Your task to perform on an android device: turn vacation reply on in the gmail app Image 0: 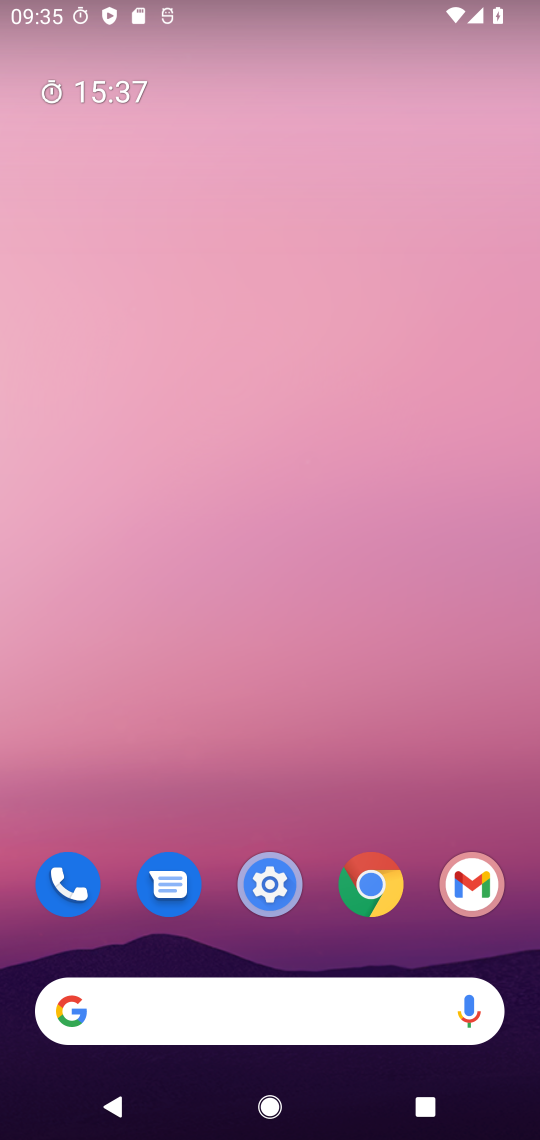
Step 0: click (455, 874)
Your task to perform on an android device: turn vacation reply on in the gmail app Image 1: 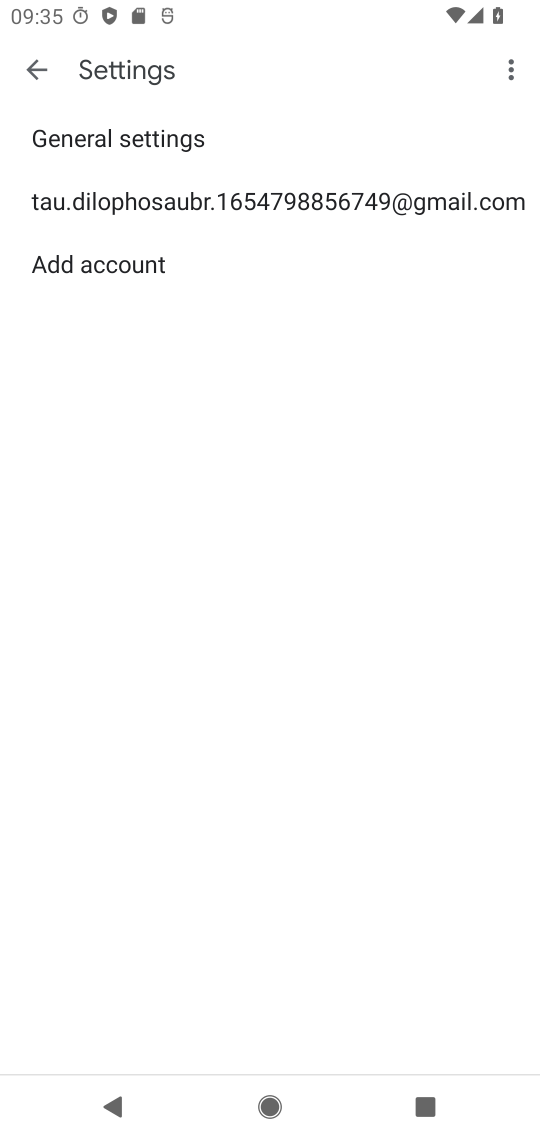
Step 1: click (179, 200)
Your task to perform on an android device: turn vacation reply on in the gmail app Image 2: 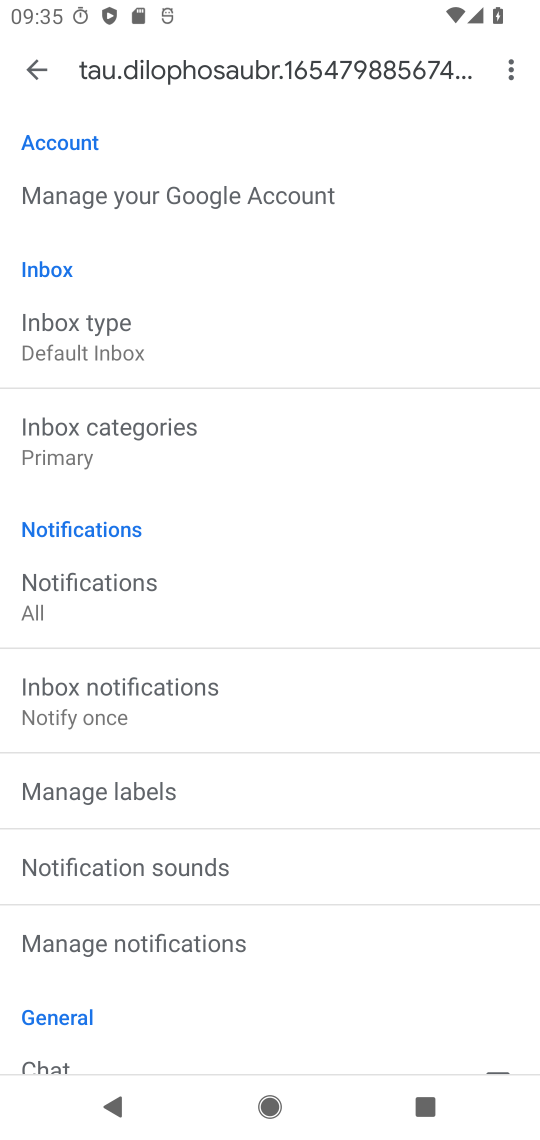
Step 2: drag from (226, 944) to (242, 491)
Your task to perform on an android device: turn vacation reply on in the gmail app Image 3: 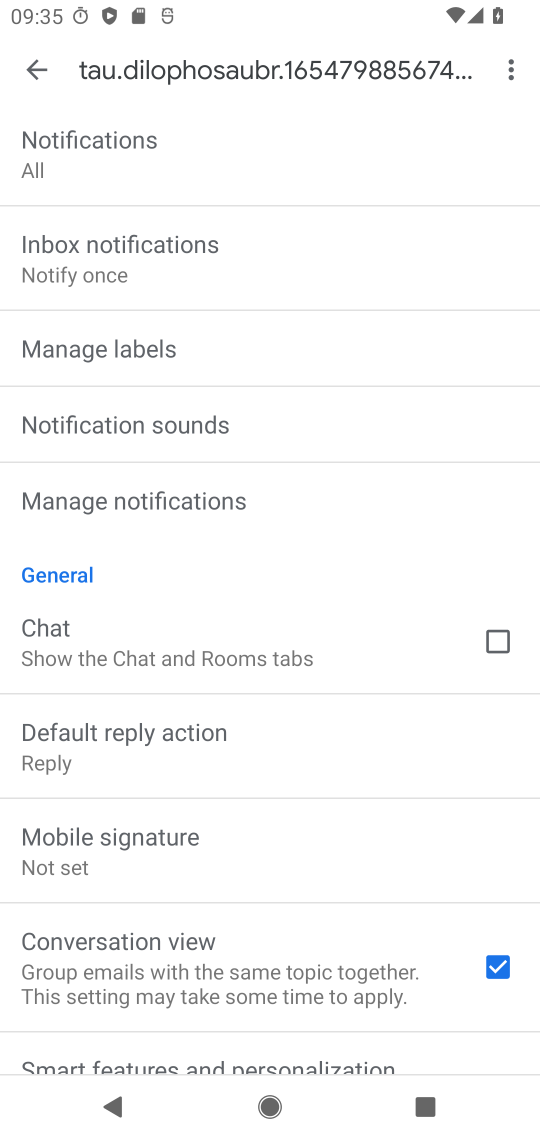
Step 3: drag from (211, 1003) to (204, 509)
Your task to perform on an android device: turn vacation reply on in the gmail app Image 4: 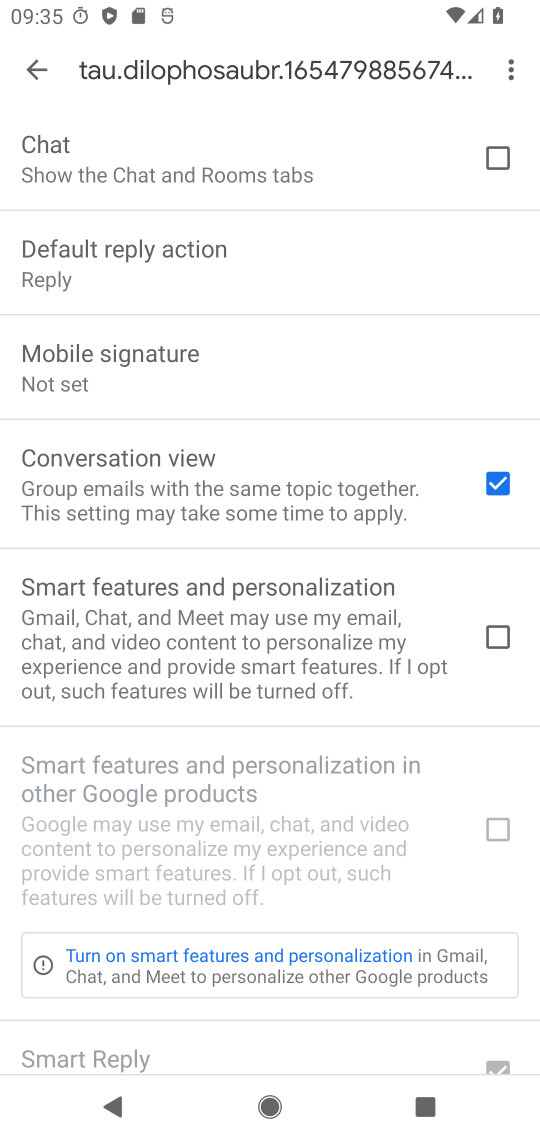
Step 4: drag from (194, 865) to (180, 345)
Your task to perform on an android device: turn vacation reply on in the gmail app Image 5: 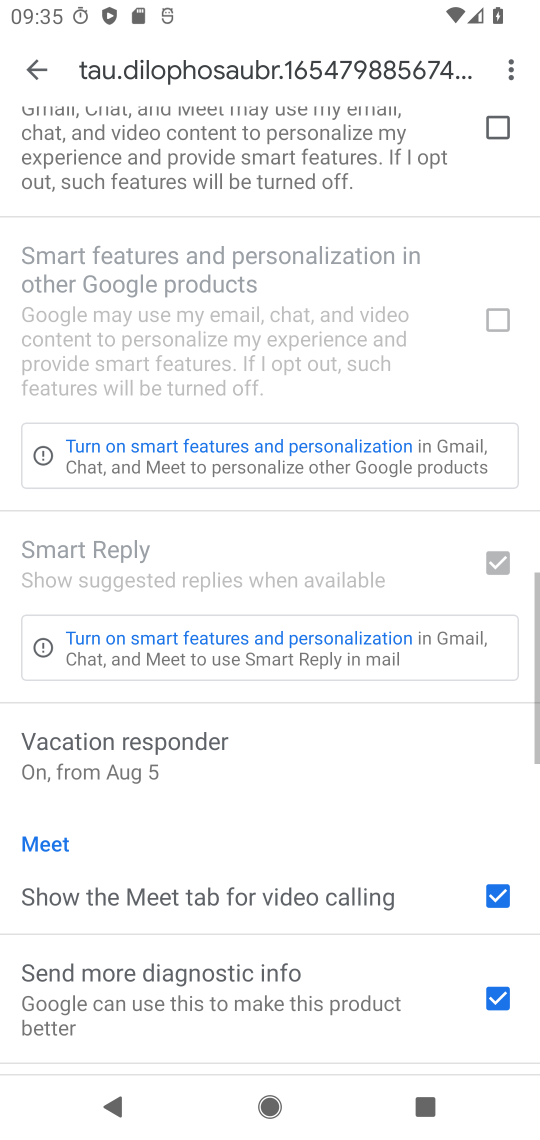
Step 5: drag from (207, 844) to (209, 637)
Your task to perform on an android device: turn vacation reply on in the gmail app Image 6: 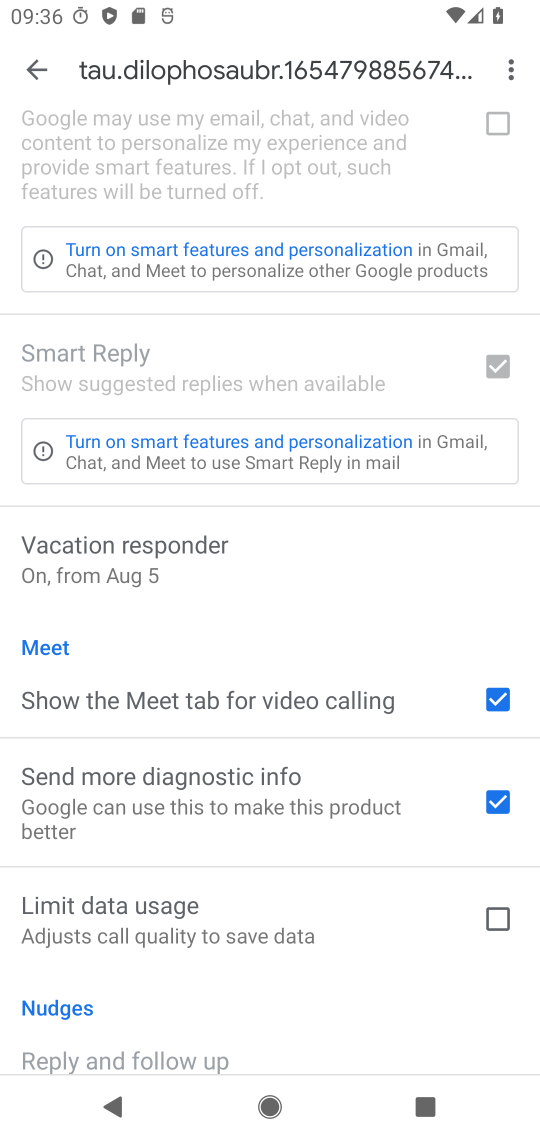
Step 6: click (199, 572)
Your task to perform on an android device: turn vacation reply on in the gmail app Image 7: 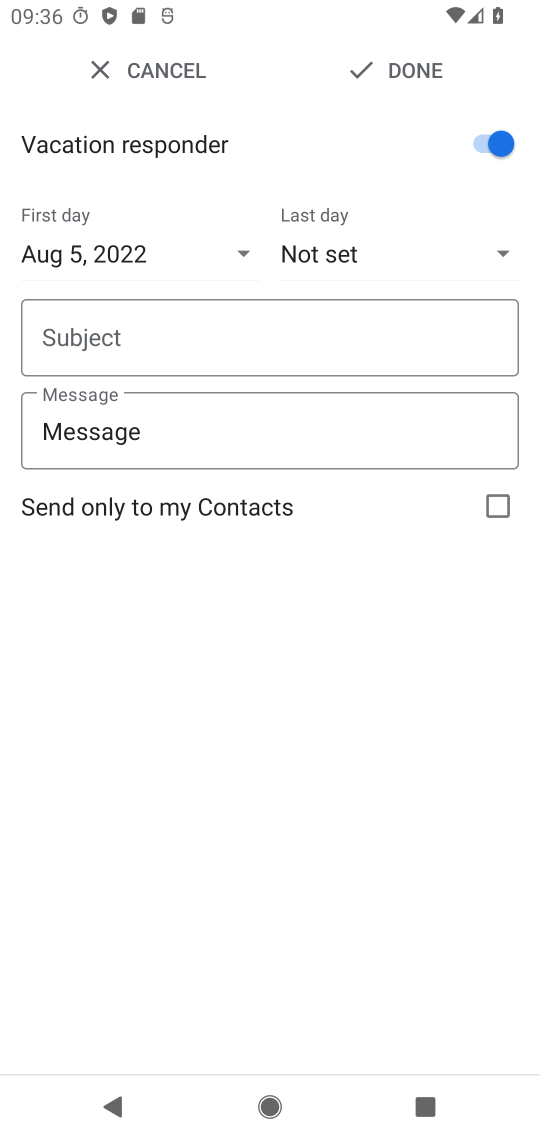
Step 7: task complete